Your task to perform on an android device: Show me recent news Image 0: 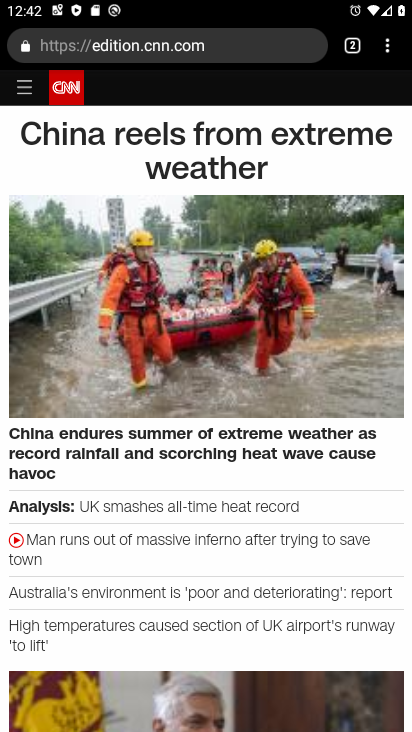
Step 0: press home button
Your task to perform on an android device: Show me recent news Image 1: 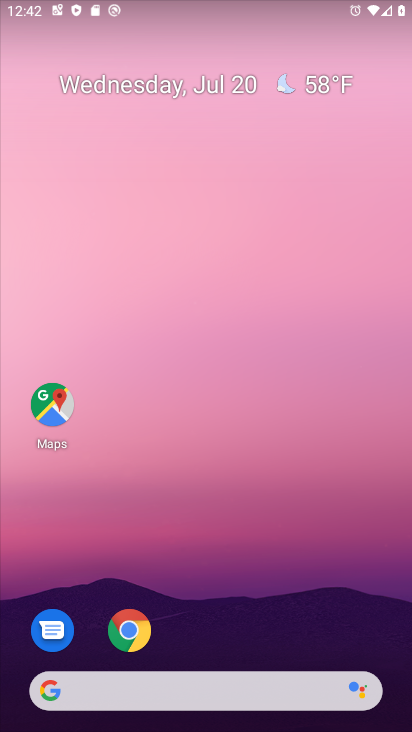
Step 1: click (155, 684)
Your task to perform on an android device: Show me recent news Image 2: 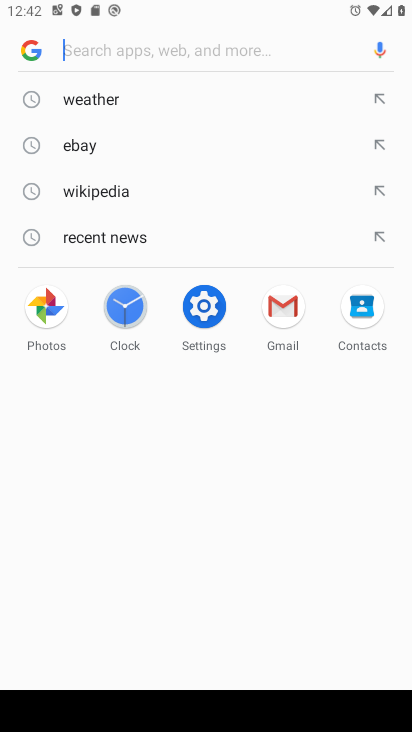
Step 2: click (104, 232)
Your task to perform on an android device: Show me recent news Image 3: 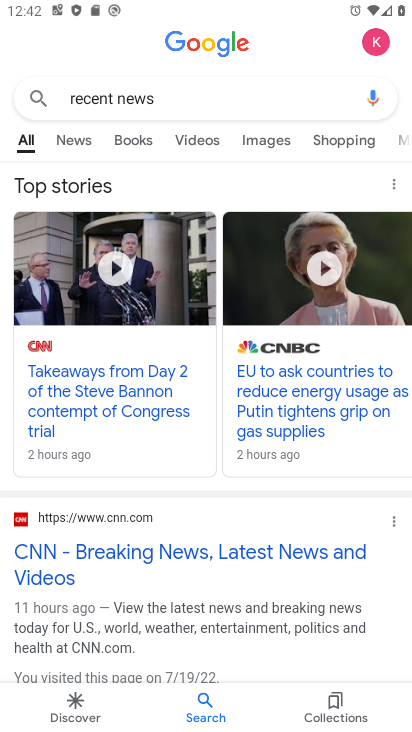
Step 3: click (84, 139)
Your task to perform on an android device: Show me recent news Image 4: 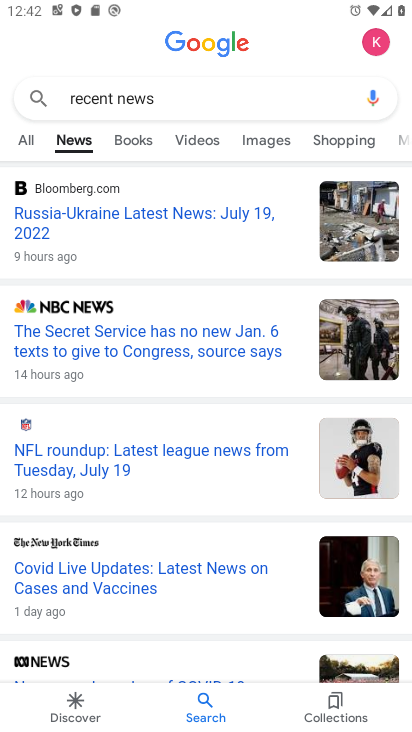
Step 4: task complete